Your task to perform on an android device: change the clock display to analog Image 0: 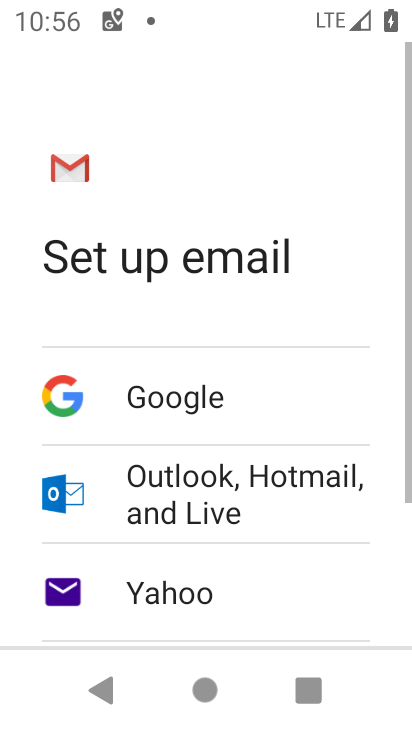
Step 0: press home button
Your task to perform on an android device: change the clock display to analog Image 1: 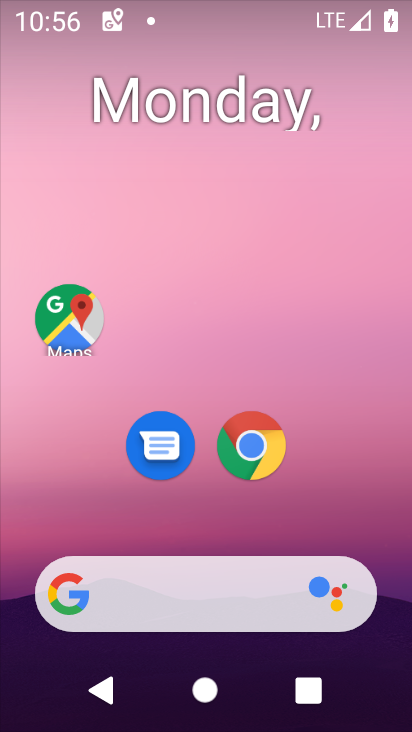
Step 1: drag from (254, 567) to (302, 2)
Your task to perform on an android device: change the clock display to analog Image 2: 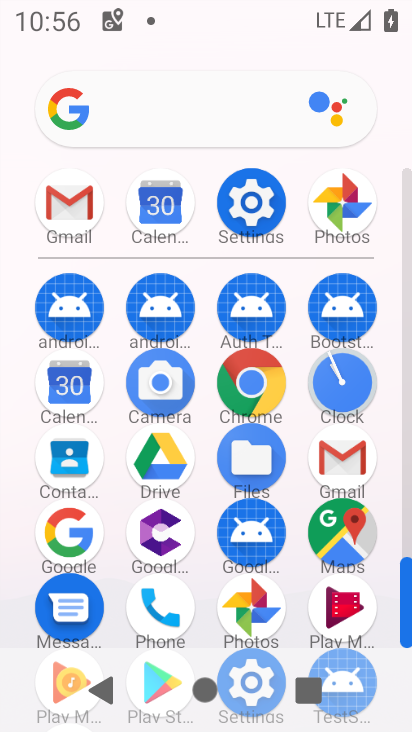
Step 2: click (320, 400)
Your task to perform on an android device: change the clock display to analog Image 3: 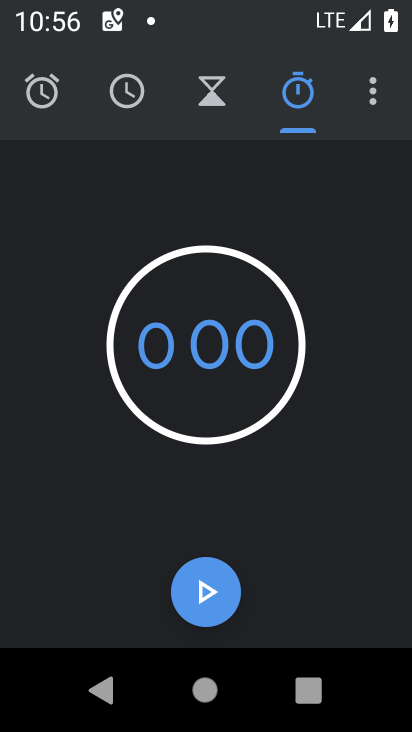
Step 3: click (368, 95)
Your task to perform on an android device: change the clock display to analog Image 4: 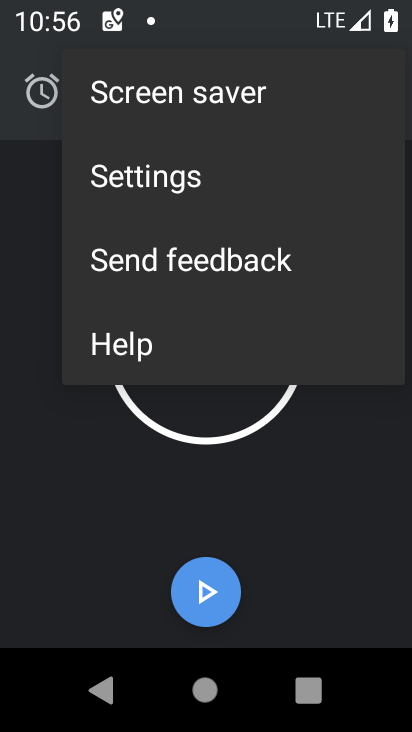
Step 4: click (181, 175)
Your task to perform on an android device: change the clock display to analog Image 5: 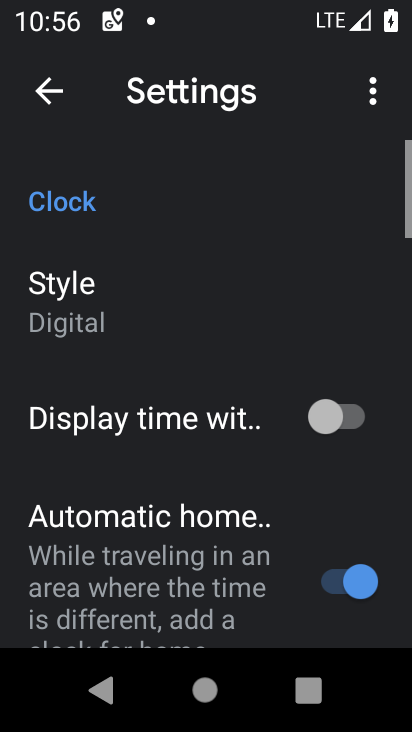
Step 5: click (147, 313)
Your task to perform on an android device: change the clock display to analog Image 6: 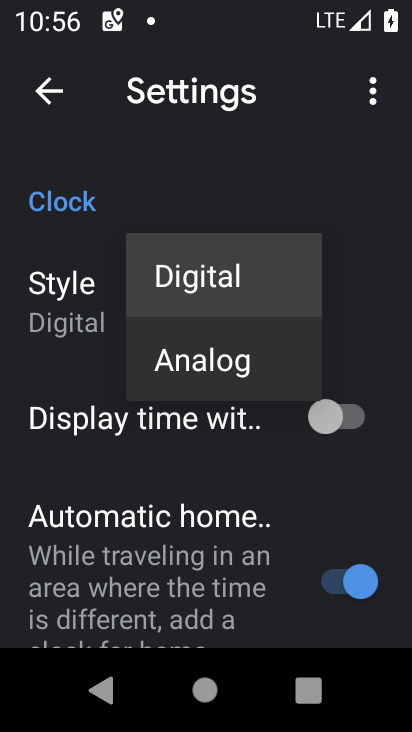
Step 6: click (215, 380)
Your task to perform on an android device: change the clock display to analog Image 7: 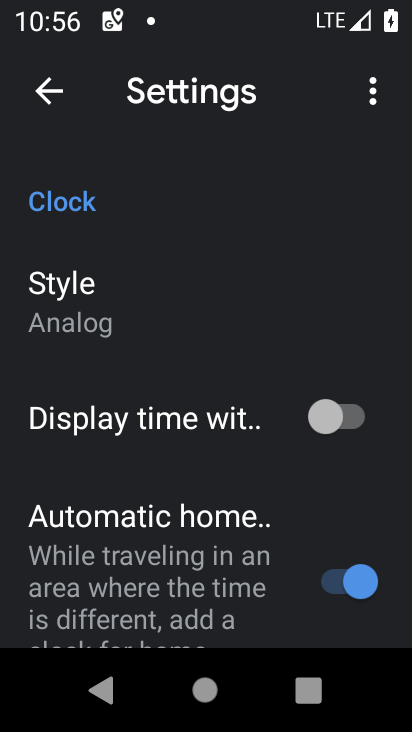
Step 7: task complete